Your task to perform on an android device: Go to Wikipedia Image 0: 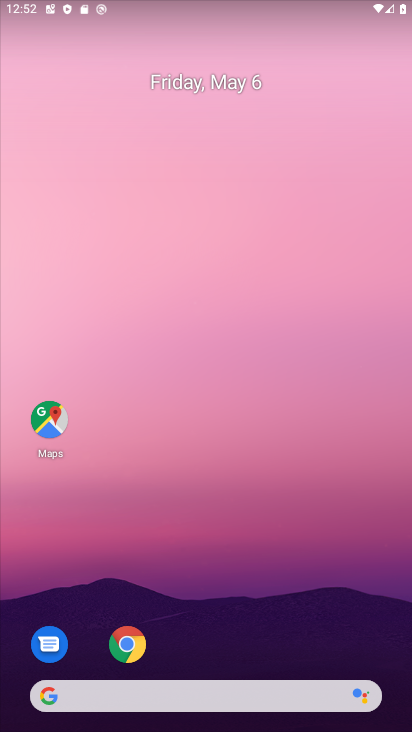
Step 0: drag from (221, 654) to (279, 69)
Your task to perform on an android device: Go to Wikipedia Image 1: 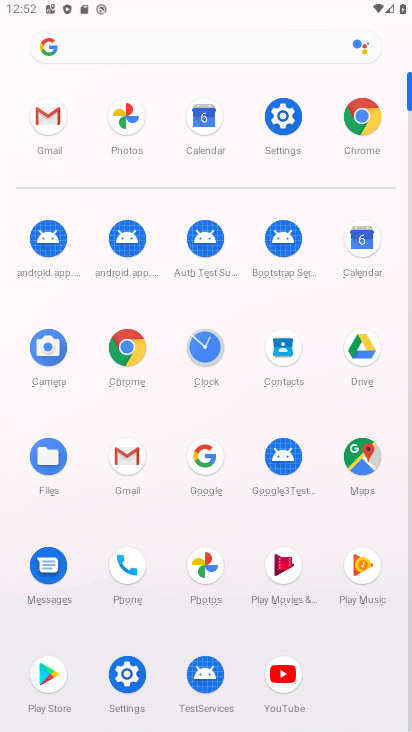
Step 1: click (113, 342)
Your task to perform on an android device: Go to Wikipedia Image 2: 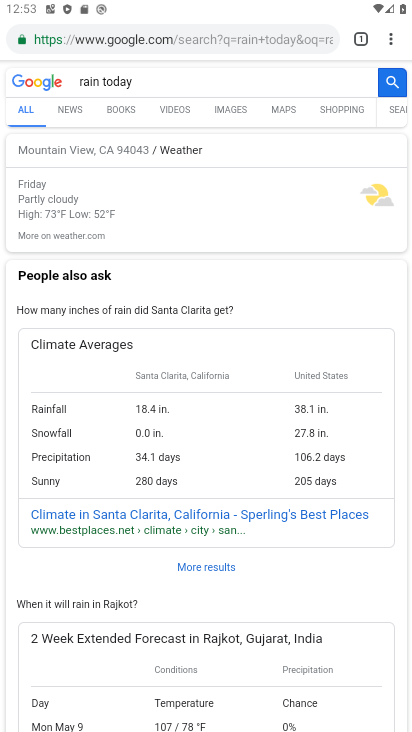
Step 2: click (285, 41)
Your task to perform on an android device: Go to Wikipedia Image 3: 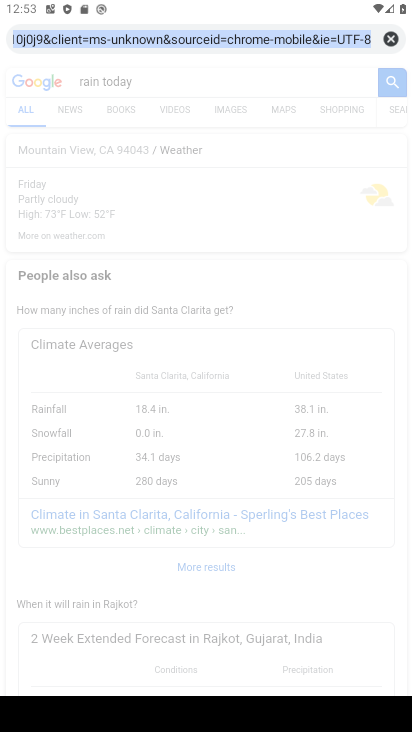
Step 3: click (392, 37)
Your task to perform on an android device: Go to Wikipedia Image 4: 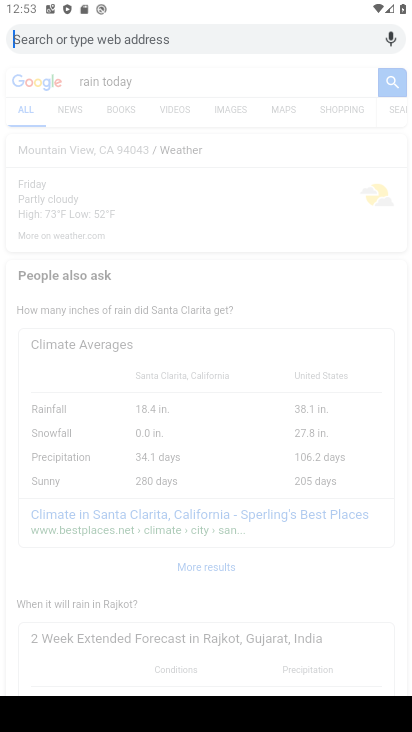
Step 4: click (257, 42)
Your task to perform on an android device: Go to Wikipedia Image 5: 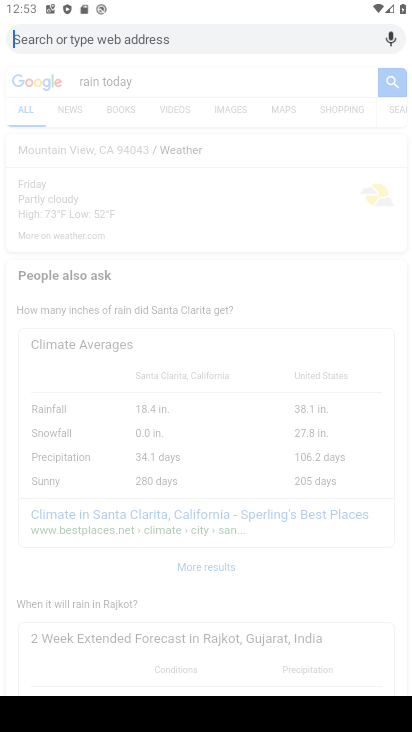
Step 5: type "wikipedia"
Your task to perform on an android device: Go to Wikipedia Image 6: 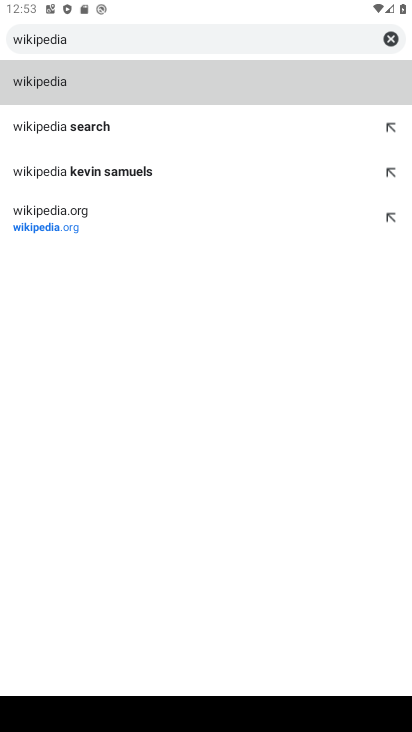
Step 6: click (33, 79)
Your task to perform on an android device: Go to Wikipedia Image 7: 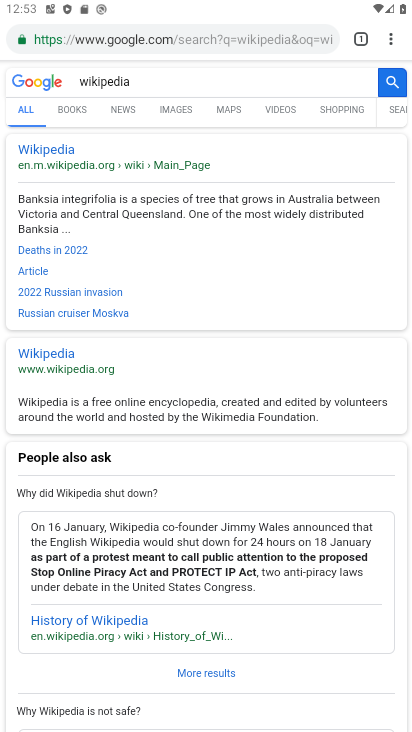
Step 7: task complete